Your task to perform on an android device: Show me recent news Image 0: 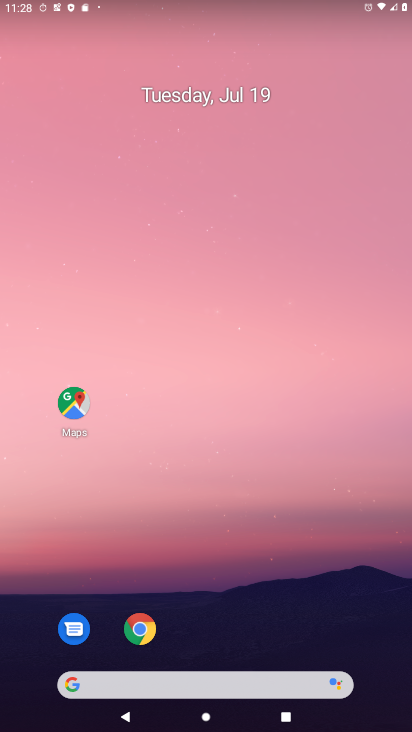
Step 0: drag from (281, 662) to (229, 119)
Your task to perform on an android device: Show me recent news Image 1: 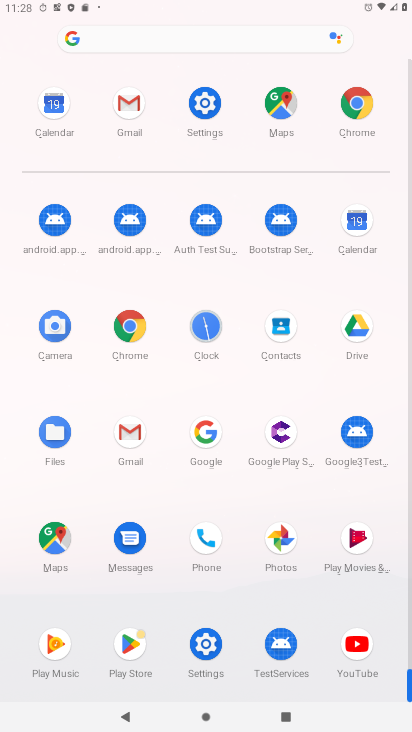
Step 1: click (359, 104)
Your task to perform on an android device: Show me recent news Image 2: 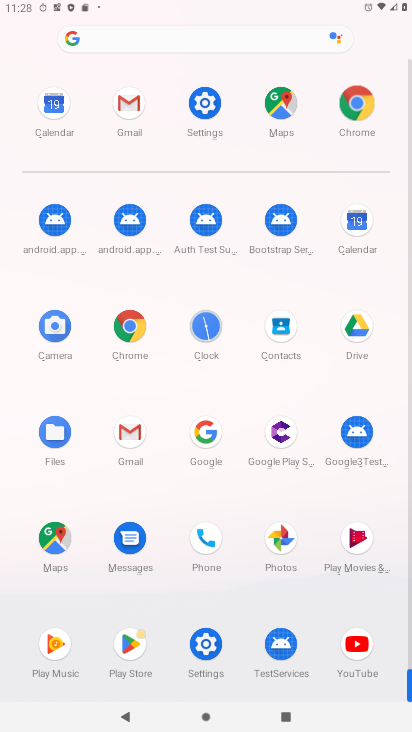
Step 2: click (360, 103)
Your task to perform on an android device: Show me recent news Image 3: 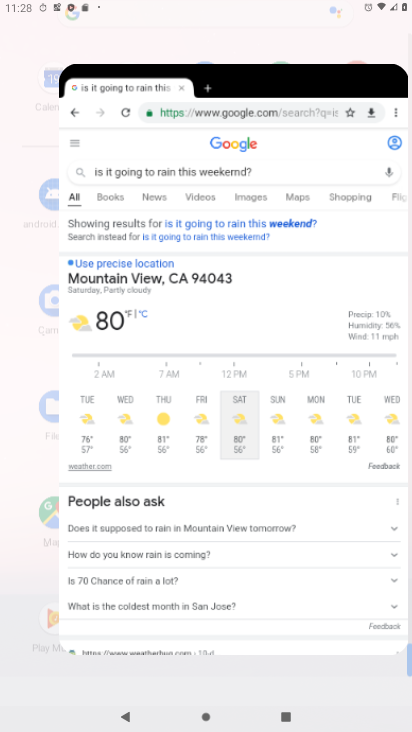
Step 3: click (360, 103)
Your task to perform on an android device: Show me recent news Image 4: 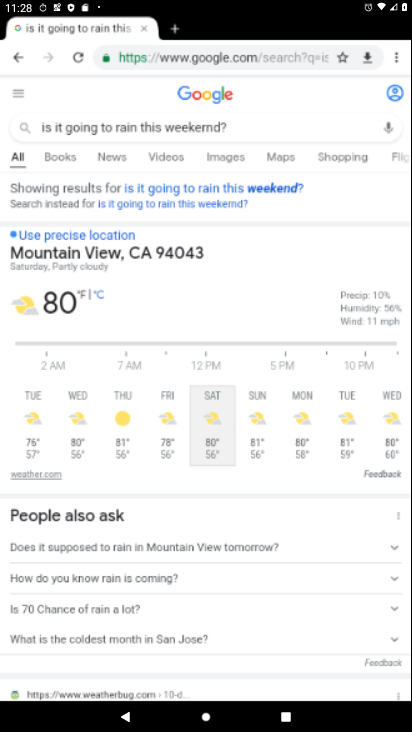
Step 4: click (360, 103)
Your task to perform on an android device: Show me recent news Image 5: 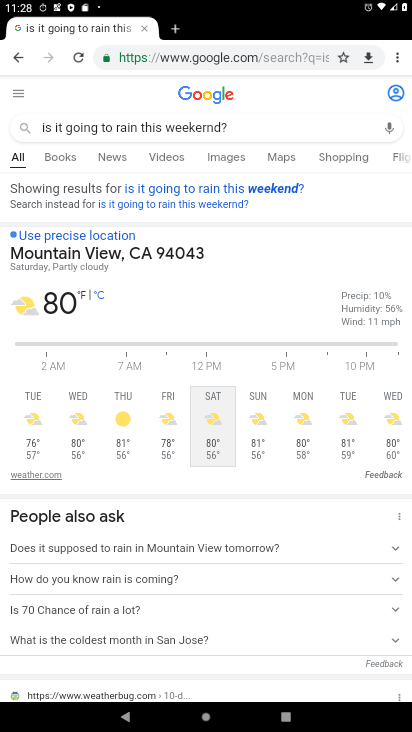
Step 5: task complete